Your task to perform on an android device: What is the recent news? Image 0: 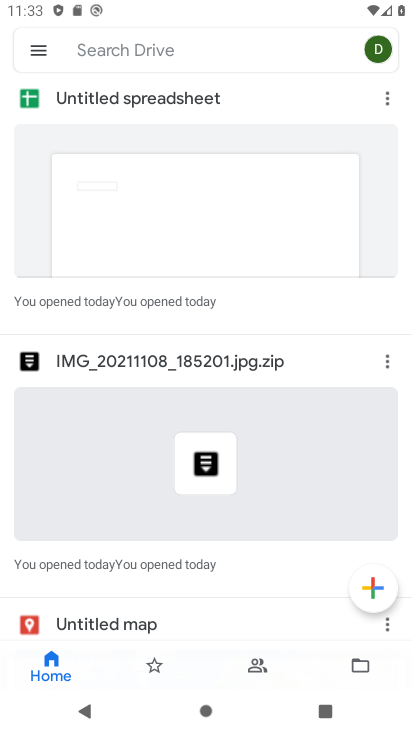
Step 0: press home button
Your task to perform on an android device: What is the recent news? Image 1: 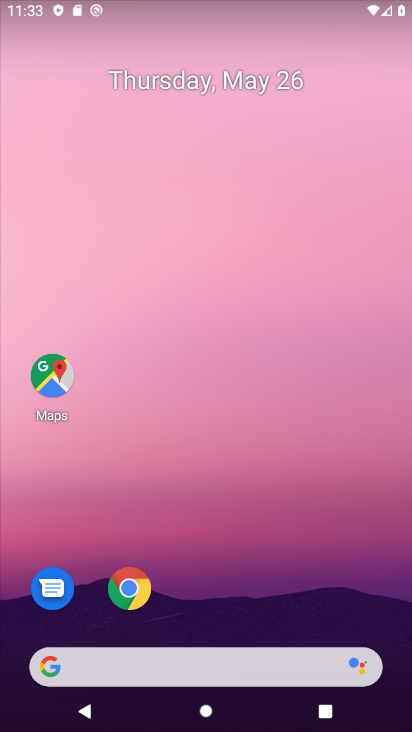
Step 1: click (214, 654)
Your task to perform on an android device: What is the recent news? Image 2: 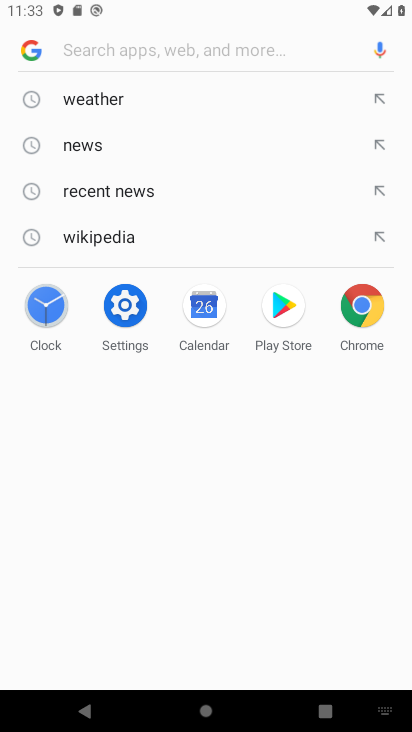
Step 2: click (75, 136)
Your task to perform on an android device: What is the recent news? Image 3: 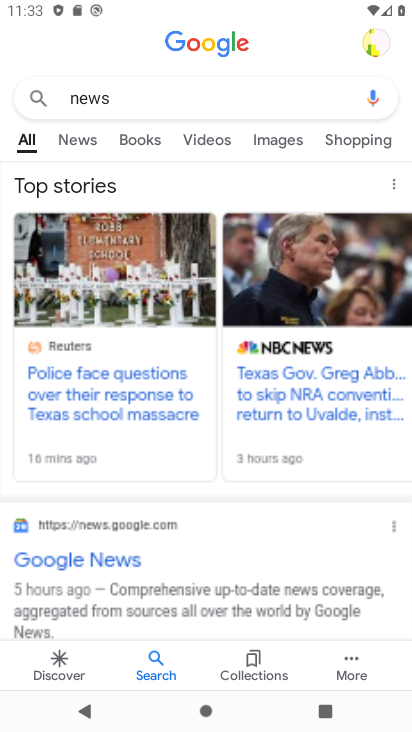
Step 3: click (89, 131)
Your task to perform on an android device: What is the recent news? Image 4: 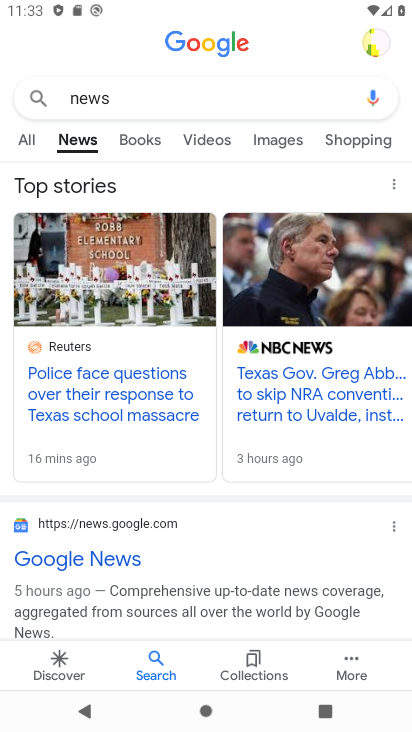
Step 4: task complete